Your task to perform on an android device: Turn off the flashlight Image 0: 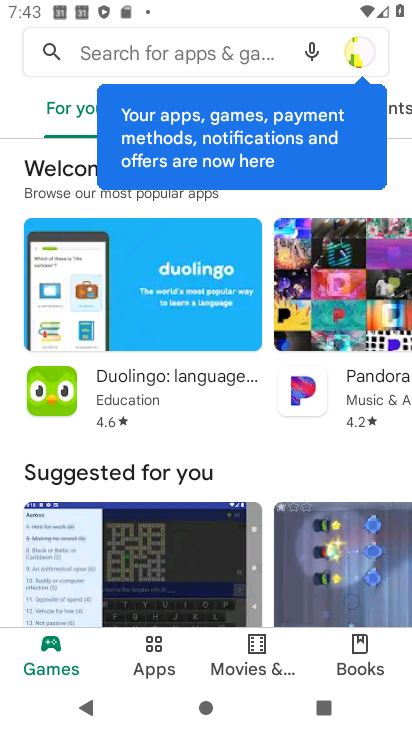
Step 0: press home button
Your task to perform on an android device: Turn off the flashlight Image 1: 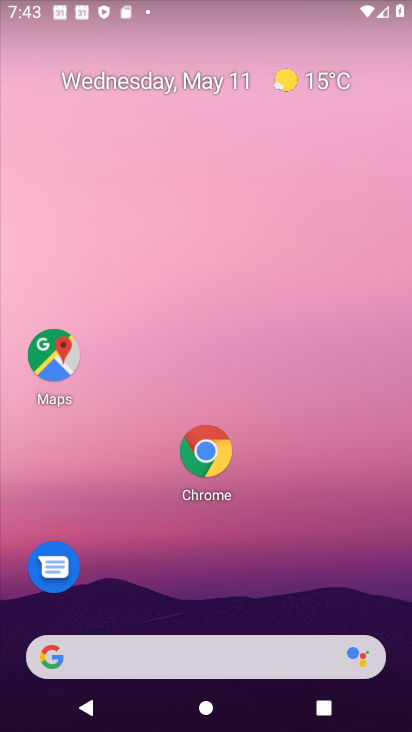
Step 1: task complete